Your task to perform on an android device: toggle translation in the chrome app Image 0: 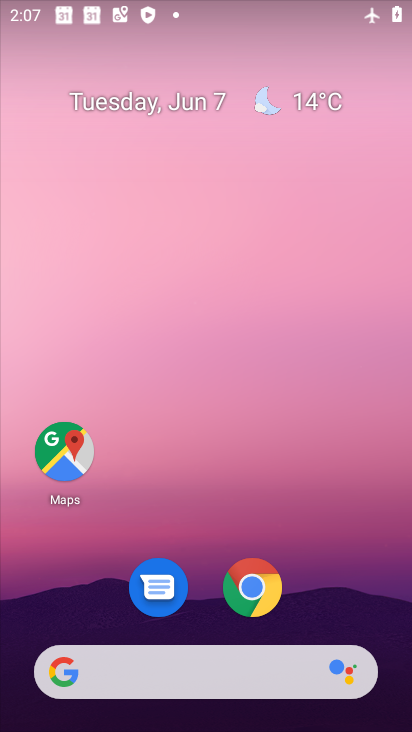
Step 0: drag from (341, 558) to (385, 19)
Your task to perform on an android device: toggle translation in the chrome app Image 1: 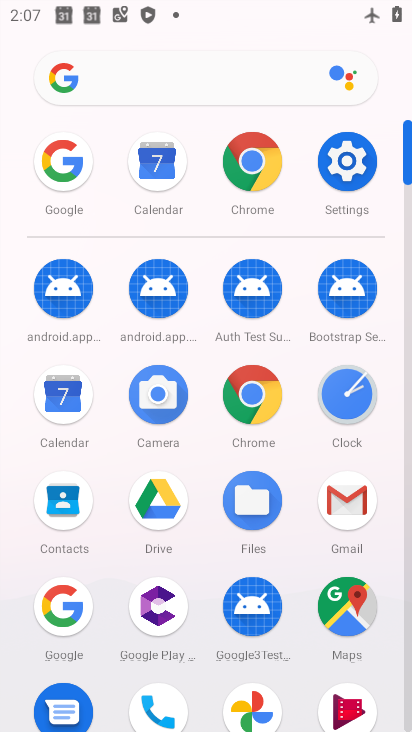
Step 1: click (260, 154)
Your task to perform on an android device: toggle translation in the chrome app Image 2: 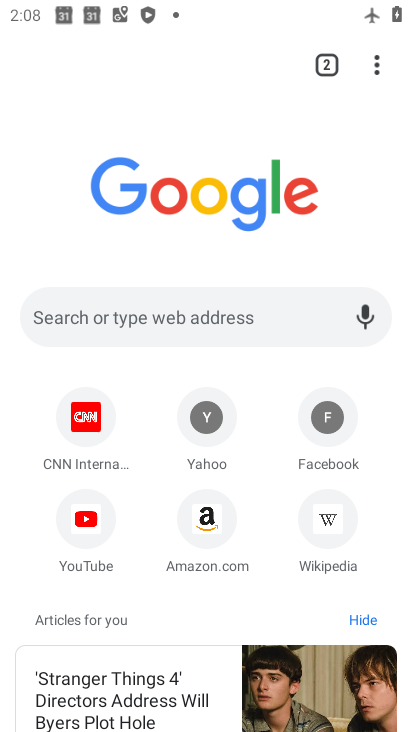
Step 2: click (380, 70)
Your task to perform on an android device: toggle translation in the chrome app Image 3: 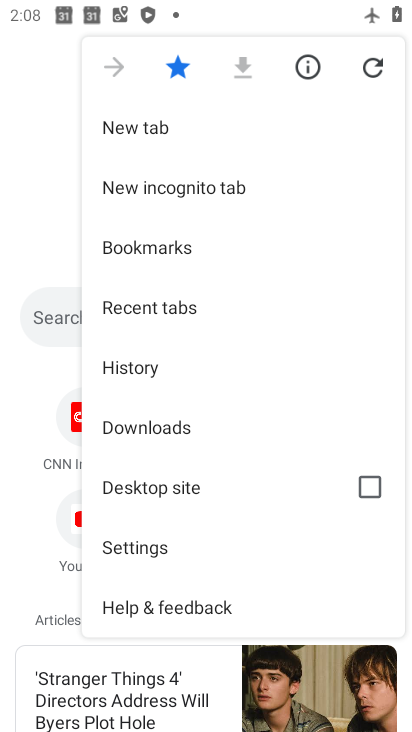
Step 3: task complete